Your task to perform on an android device: See recent photos Image 0: 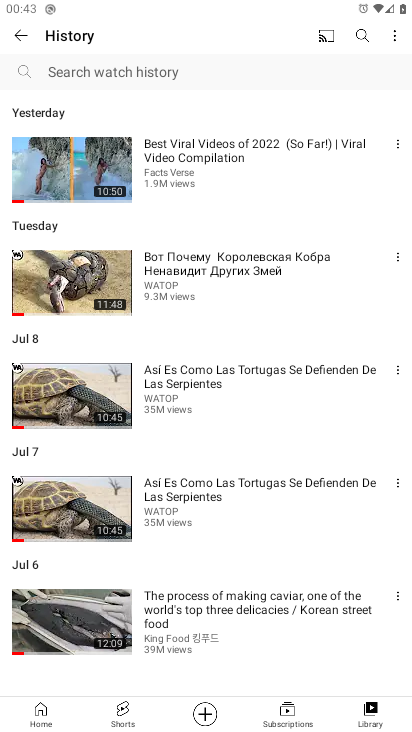
Step 0: press home button
Your task to perform on an android device: See recent photos Image 1: 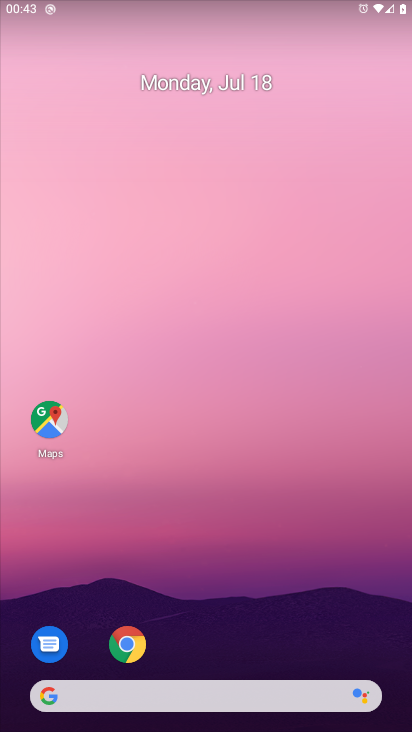
Step 1: drag from (300, 626) to (302, 25)
Your task to perform on an android device: See recent photos Image 2: 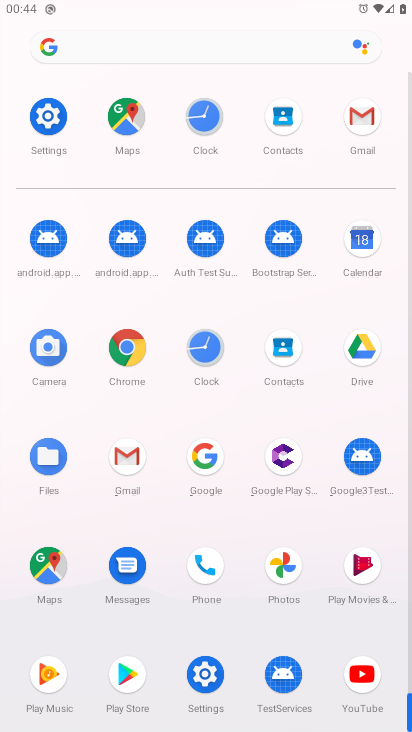
Step 2: click (275, 560)
Your task to perform on an android device: See recent photos Image 3: 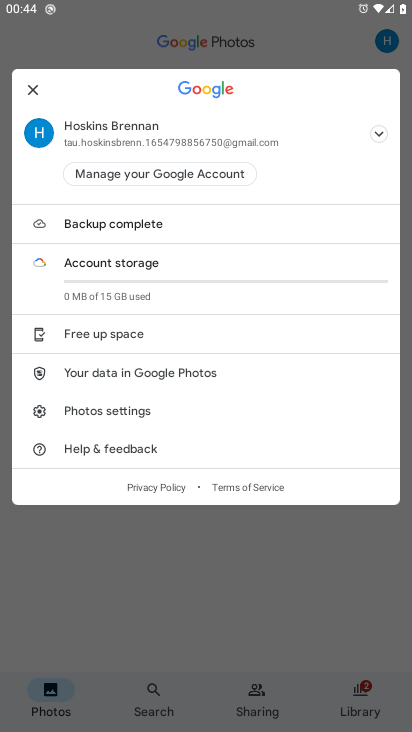
Step 3: click (30, 82)
Your task to perform on an android device: See recent photos Image 4: 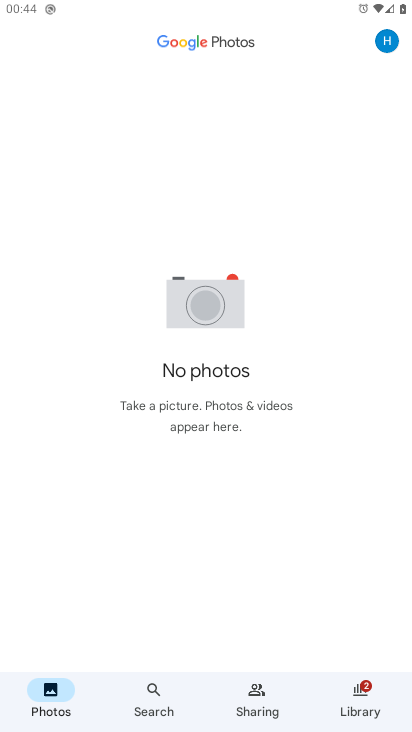
Step 4: click (47, 699)
Your task to perform on an android device: See recent photos Image 5: 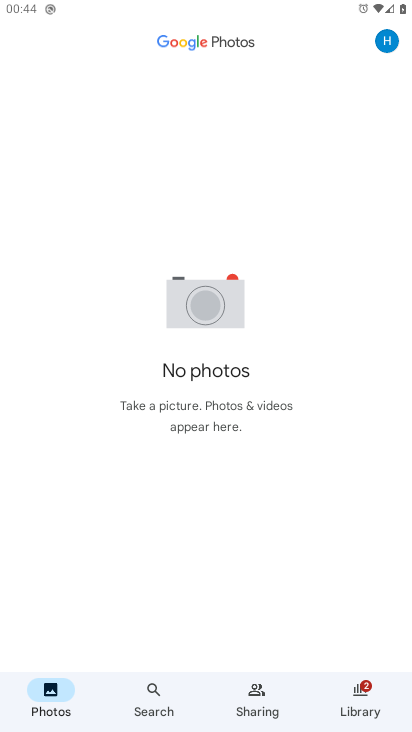
Step 5: task complete